Your task to perform on an android device: clear all cookies in the chrome app Image 0: 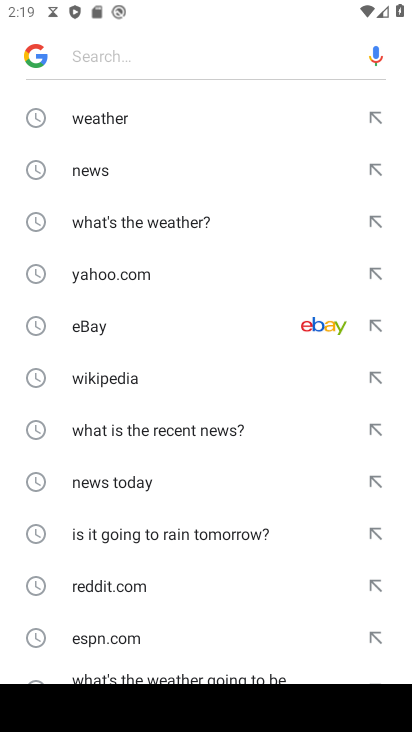
Step 0: press back button
Your task to perform on an android device: clear all cookies in the chrome app Image 1: 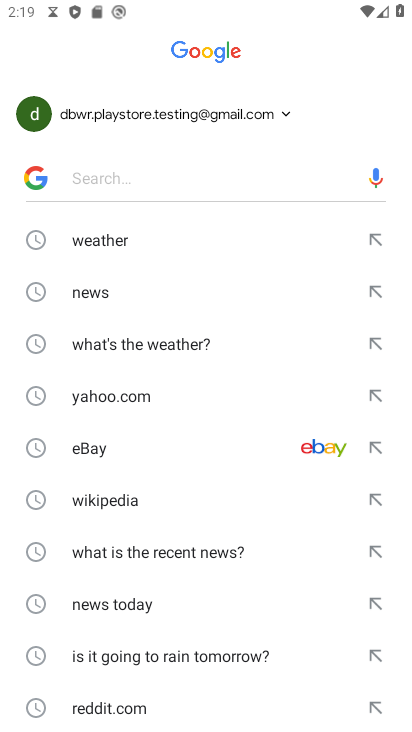
Step 1: press home button
Your task to perform on an android device: clear all cookies in the chrome app Image 2: 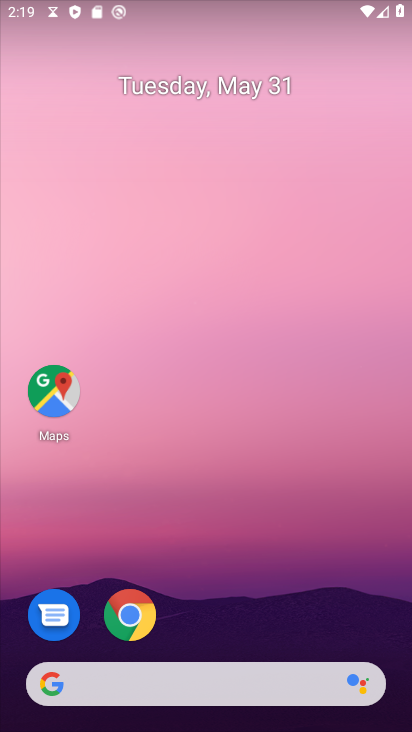
Step 2: drag from (273, 473) to (273, 204)
Your task to perform on an android device: clear all cookies in the chrome app Image 3: 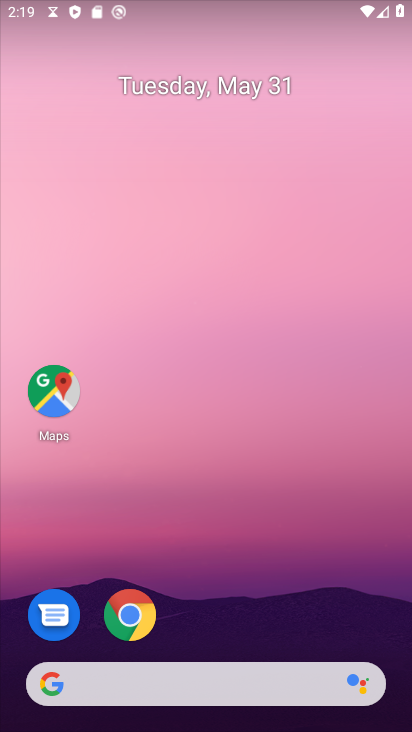
Step 3: drag from (275, 630) to (196, 69)
Your task to perform on an android device: clear all cookies in the chrome app Image 4: 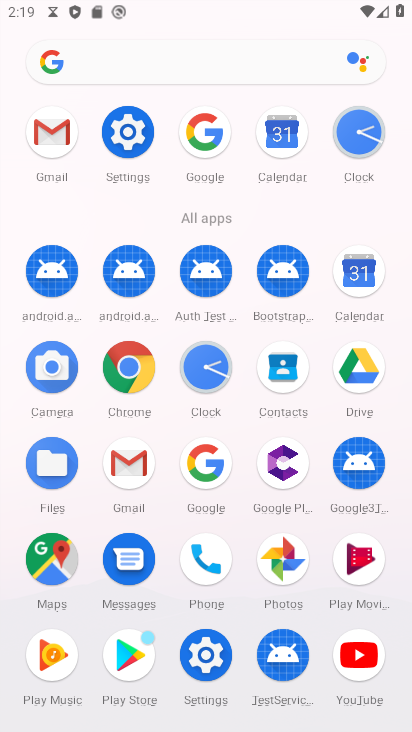
Step 4: click (131, 373)
Your task to perform on an android device: clear all cookies in the chrome app Image 5: 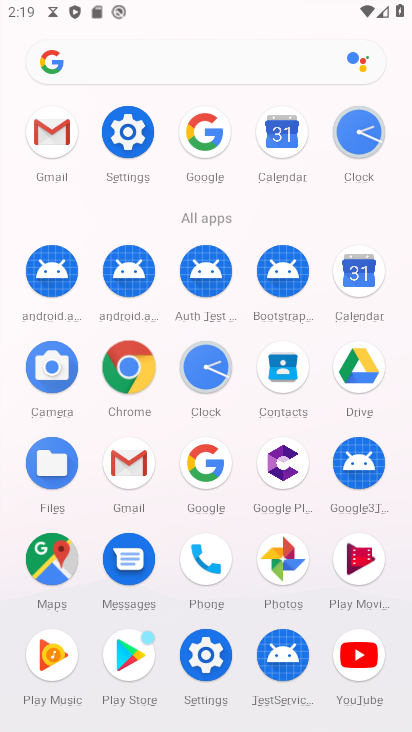
Step 5: click (131, 373)
Your task to perform on an android device: clear all cookies in the chrome app Image 6: 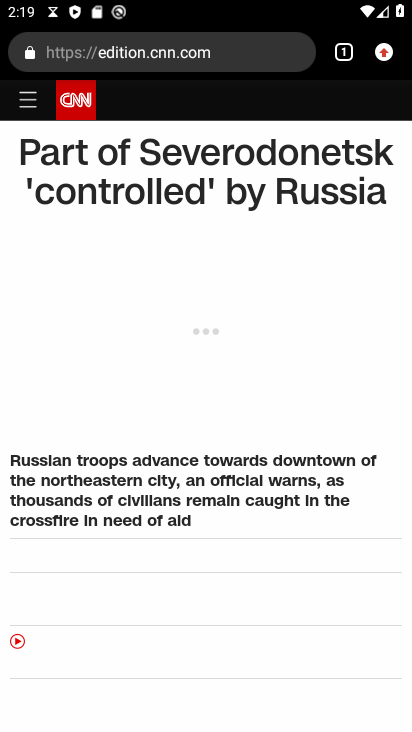
Step 6: drag from (384, 55) to (334, 295)
Your task to perform on an android device: clear all cookies in the chrome app Image 7: 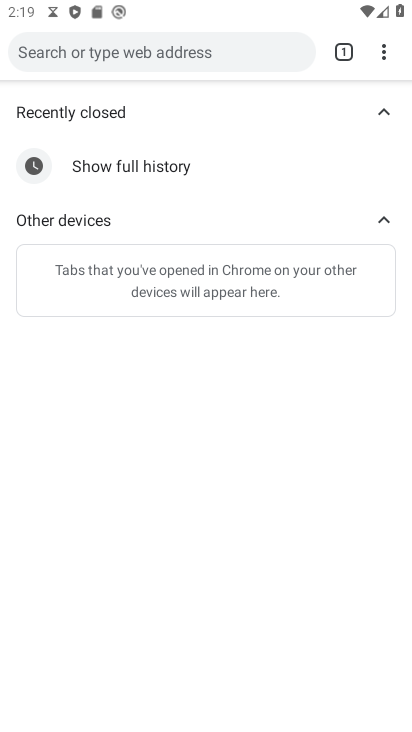
Step 7: drag from (380, 52) to (182, 499)
Your task to perform on an android device: clear all cookies in the chrome app Image 8: 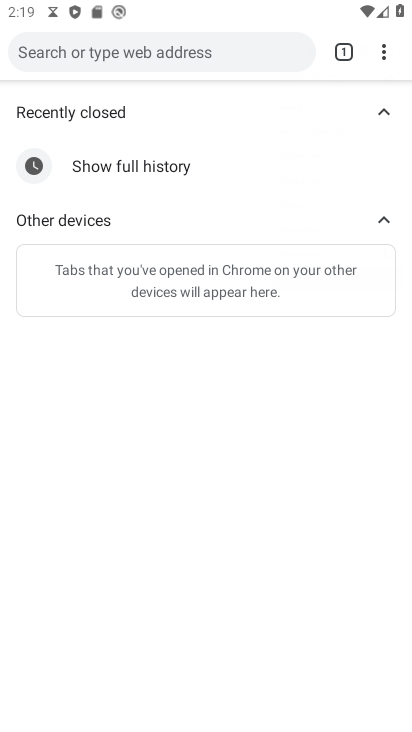
Step 8: click (187, 511)
Your task to perform on an android device: clear all cookies in the chrome app Image 9: 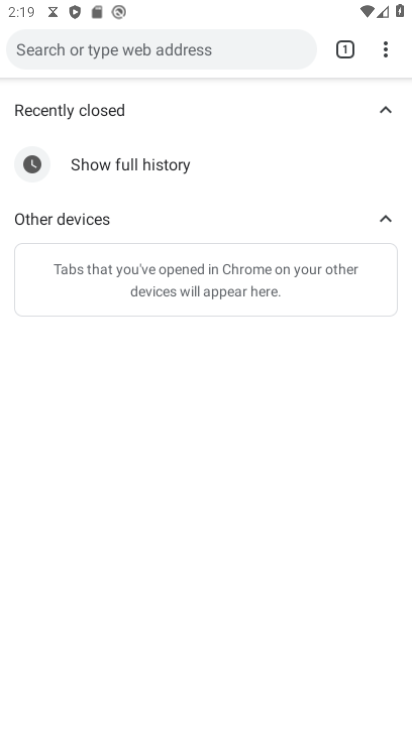
Step 9: click (188, 511)
Your task to perform on an android device: clear all cookies in the chrome app Image 10: 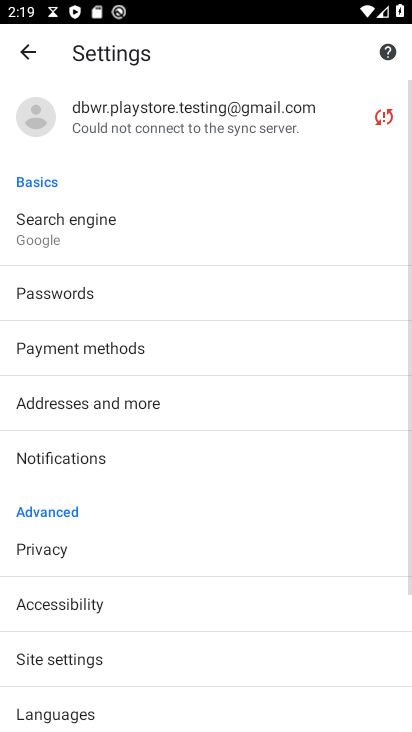
Step 10: drag from (128, 543) to (108, 181)
Your task to perform on an android device: clear all cookies in the chrome app Image 11: 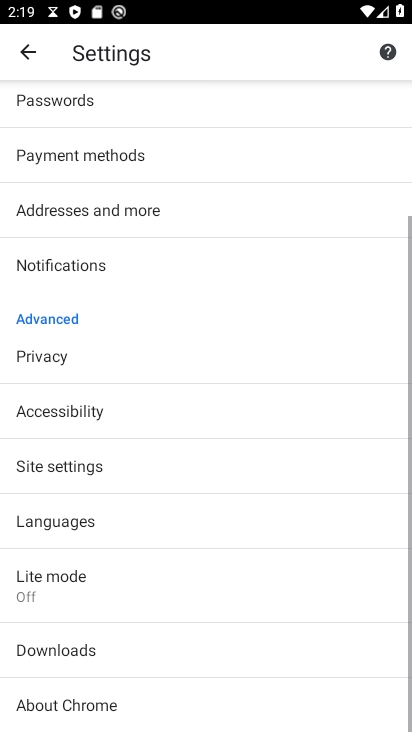
Step 11: drag from (87, 373) to (70, 32)
Your task to perform on an android device: clear all cookies in the chrome app Image 12: 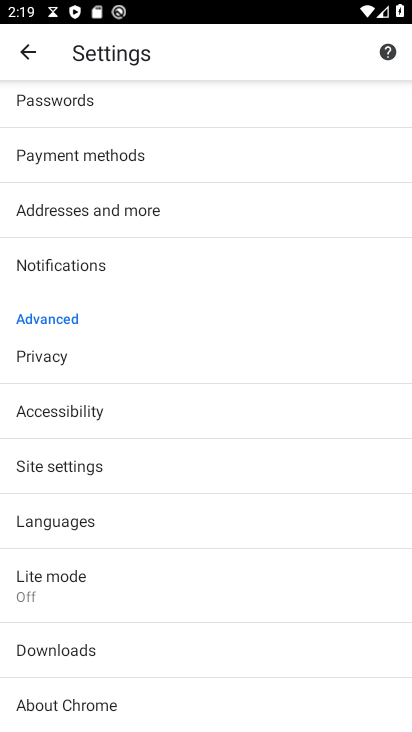
Step 12: click (50, 463)
Your task to perform on an android device: clear all cookies in the chrome app Image 13: 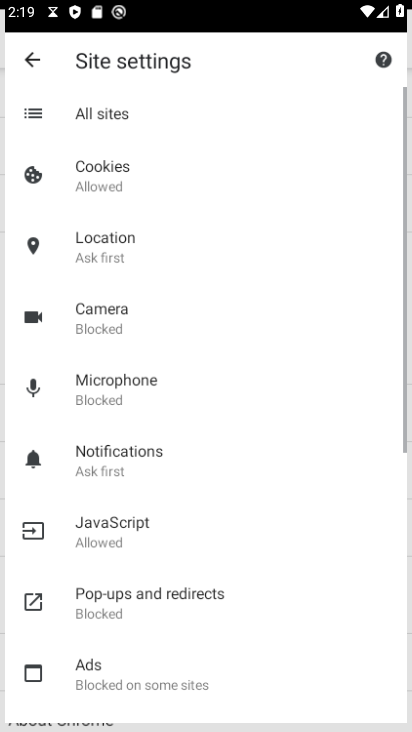
Step 13: click (51, 462)
Your task to perform on an android device: clear all cookies in the chrome app Image 14: 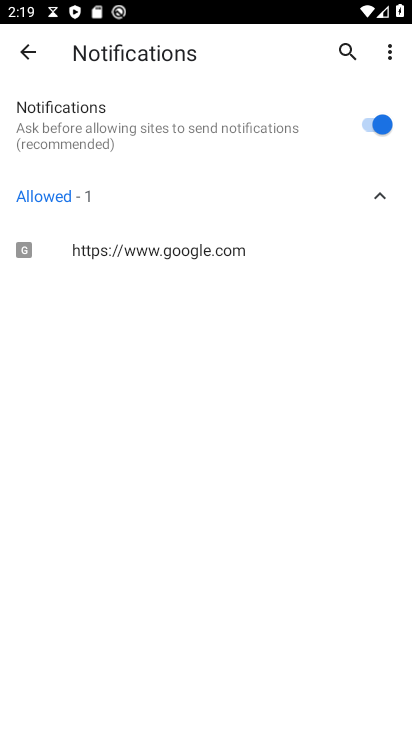
Step 14: click (13, 42)
Your task to perform on an android device: clear all cookies in the chrome app Image 15: 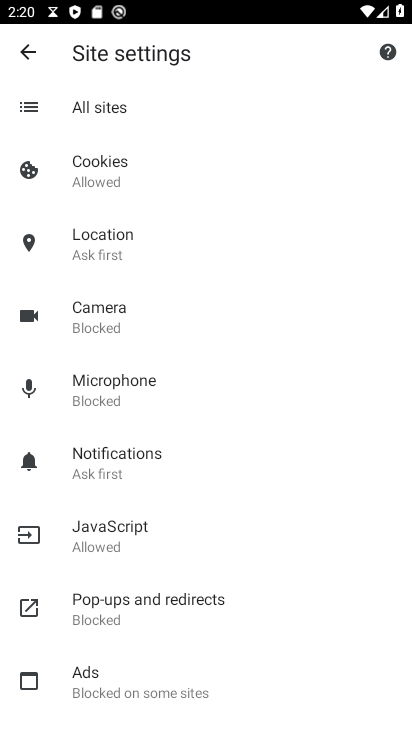
Step 15: click (92, 105)
Your task to perform on an android device: clear all cookies in the chrome app Image 16: 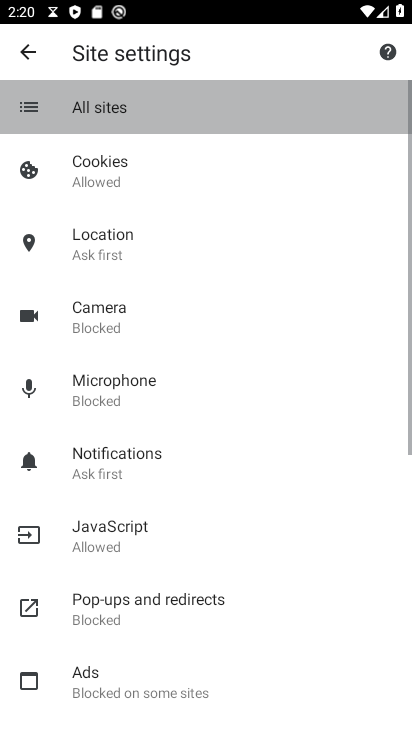
Step 16: click (92, 105)
Your task to perform on an android device: clear all cookies in the chrome app Image 17: 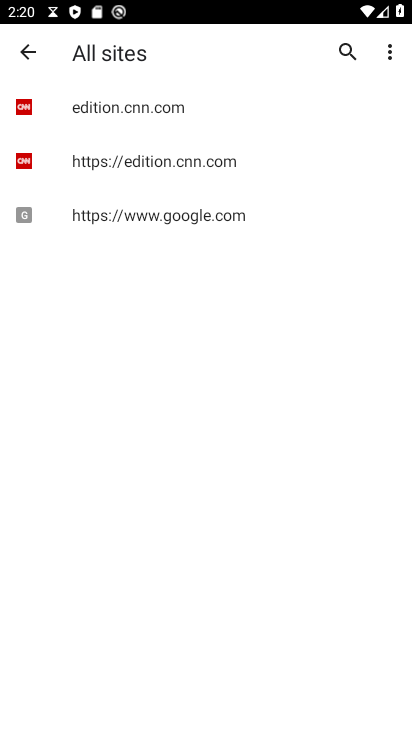
Step 17: click (26, 53)
Your task to perform on an android device: clear all cookies in the chrome app Image 18: 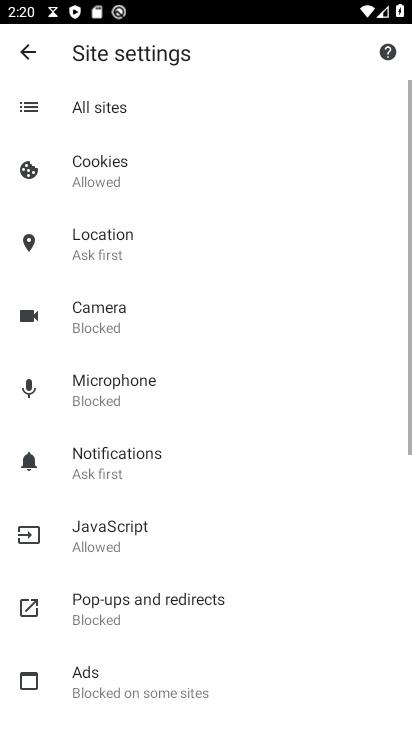
Step 18: click (110, 171)
Your task to perform on an android device: clear all cookies in the chrome app Image 19: 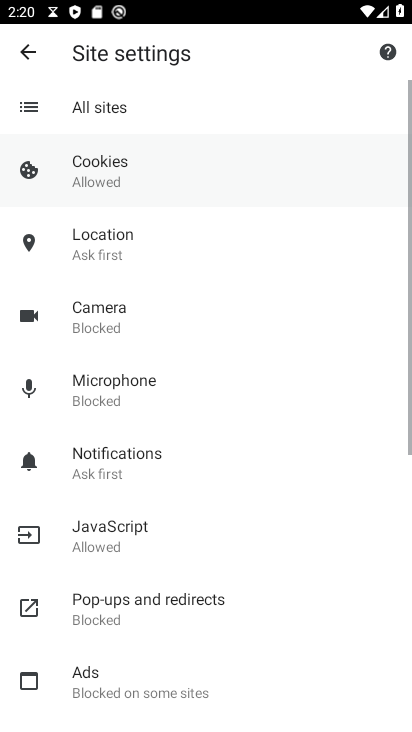
Step 19: click (110, 171)
Your task to perform on an android device: clear all cookies in the chrome app Image 20: 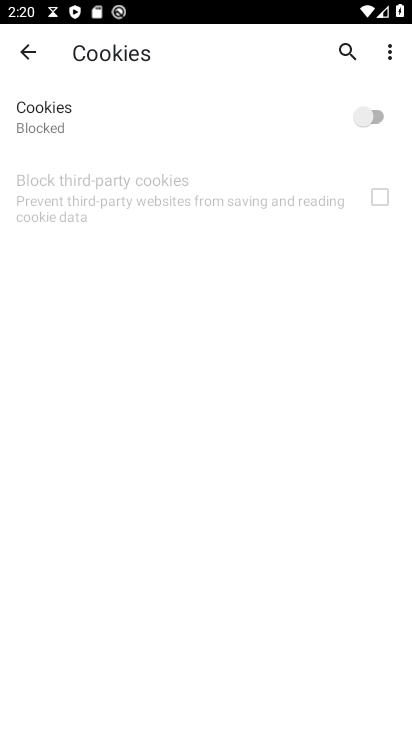
Step 20: click (357, 121)
Your task to perform on an android device: clear all cookies in the chrome app Image 21: 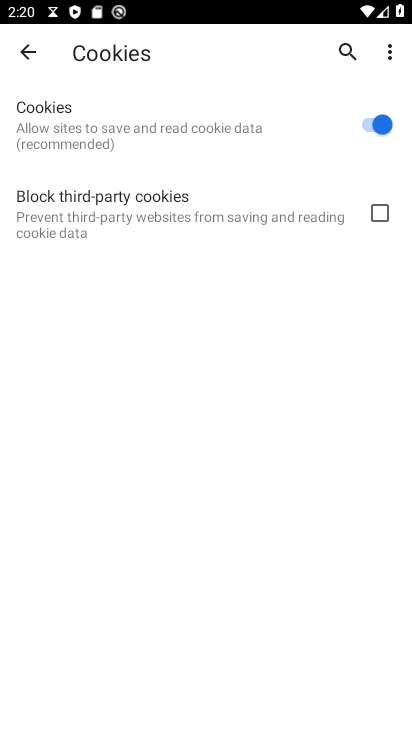
Step 21: task complete